Your task to perform on an android device: clear all cookies in the chrome app Image 0: 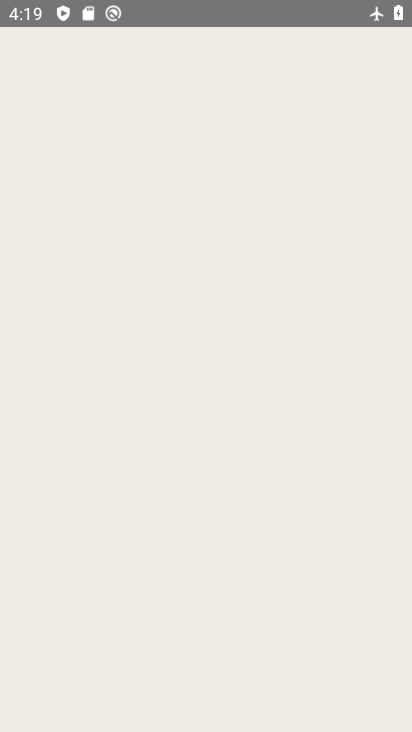
Step 0: click (114, 86)
Your task to perform on an android device: clear all cookies in the chrome app Image 1: 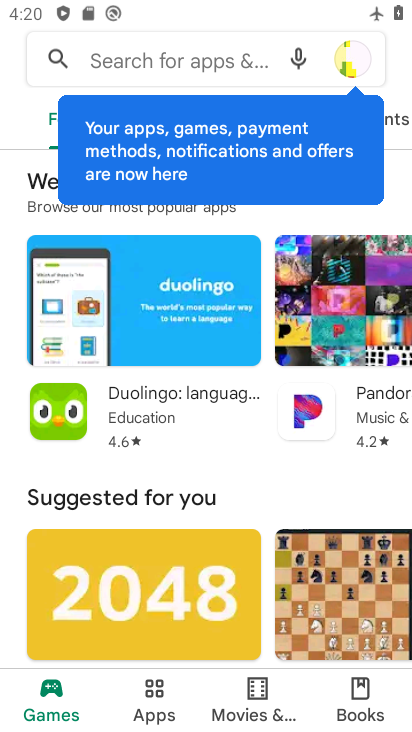
Step 1: press home button
Your task to perform on an android device: clear all cookies in the chrome app Image 2: 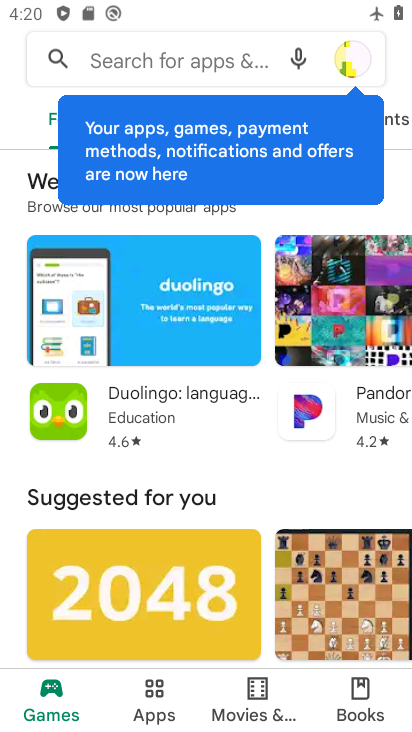
Step 2: press home button
Your task to perform on an android device: clear all cookies in the chrome app Image 3: 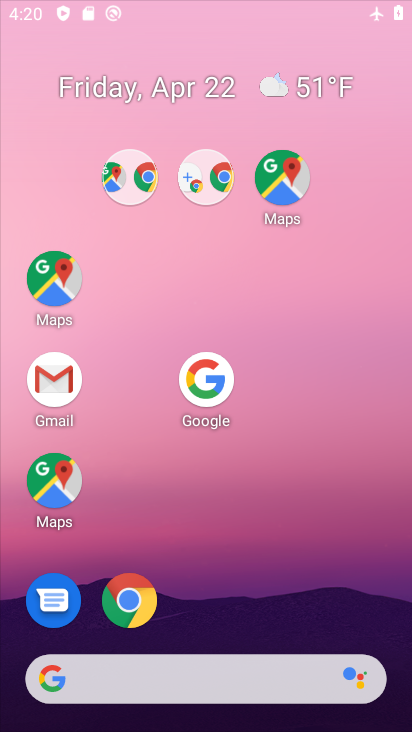
Step 3: press home button
Your task to perform on an android device: clear all cookies in the chrome app Image 4: 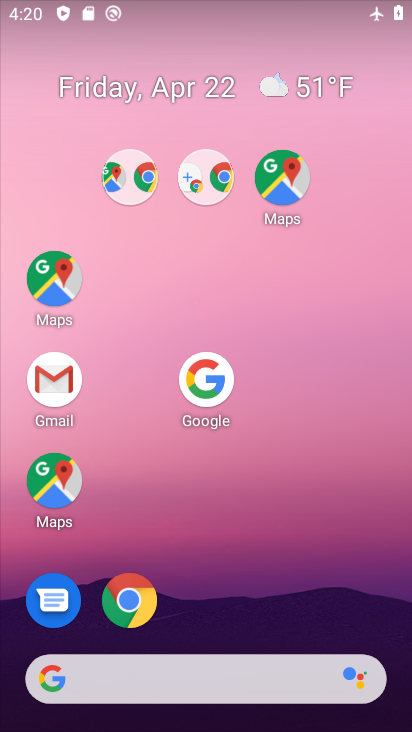
Step 4: drag from (306, 501) to (264, 317)
Your task to perform on an android device: clear all cookies in the chrome app Image 5: 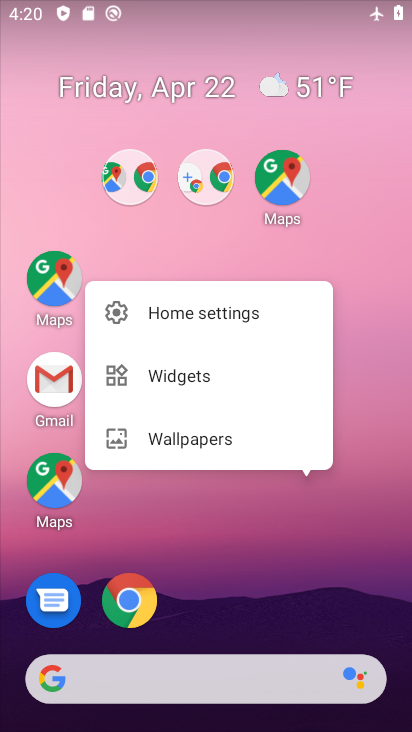
Step 5: drag from (260, 440) to (167, 196)
Your task to perform on an android device: clear all cookies in the chrome app Image 6: 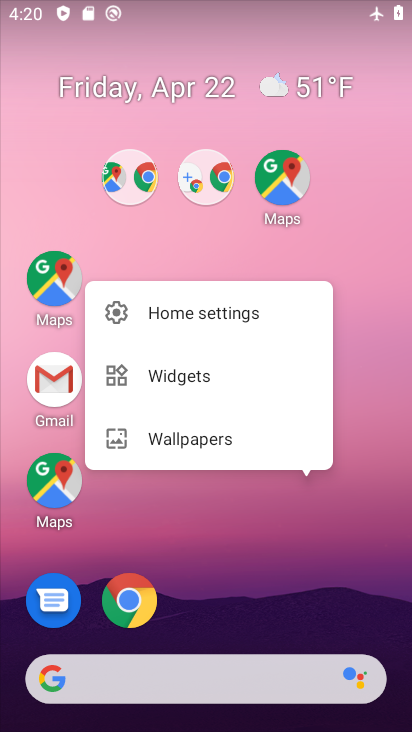
Step 6: click (207, 24)
Your task to perform on an android device: clear all cookies in the chrome app Image 7: 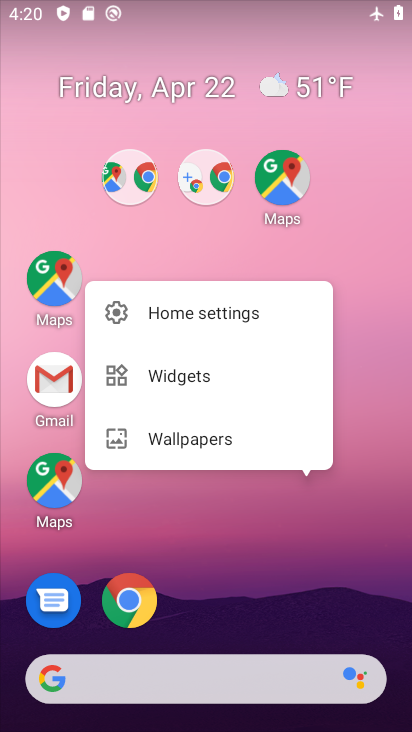
Step 7: click (367, 228)
Your task to perform on an android device: clear all cookies in the chrome app Image 8: 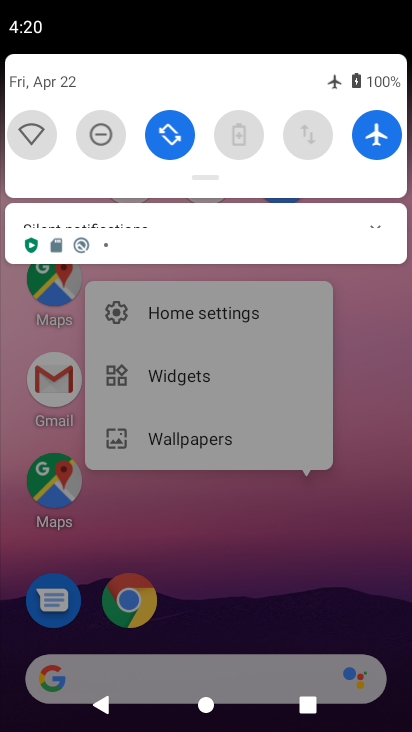
Step 8: click (356, 225)
Your task to perform on an android device: clear all cookies in the chrome app Image 9: 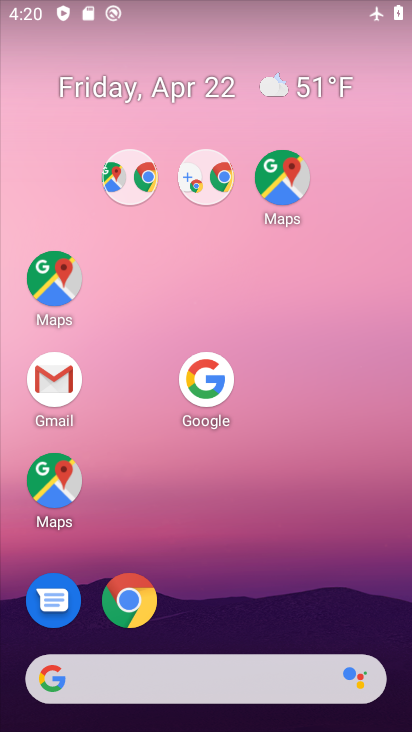
Step 9: drag from (297, 267) to (277, 120)
Your task to perform on an android device: clear all cookies in the chrome app Image 10: 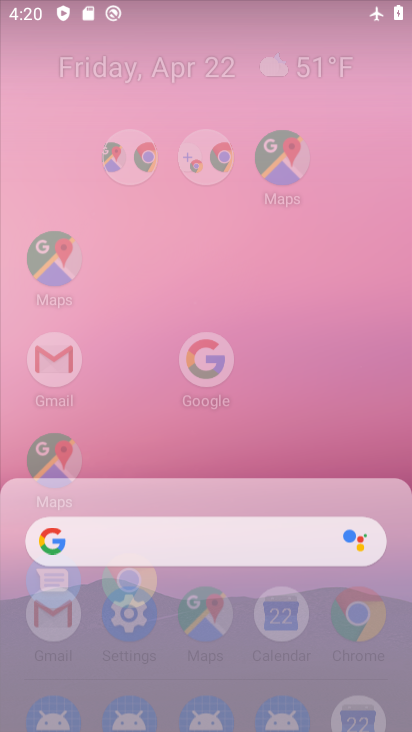
Step 10: drag from (276, 513) to (196, 72)
Your task to perform on an android device: clear all cookies in the chrome app Image 11: 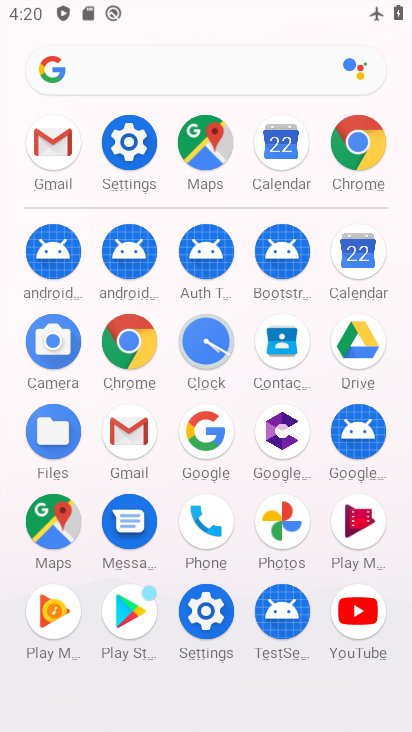
Step 11: click (359, 134)
Your task to perform on an android device: clear all cookies in the chrome app Image 12: 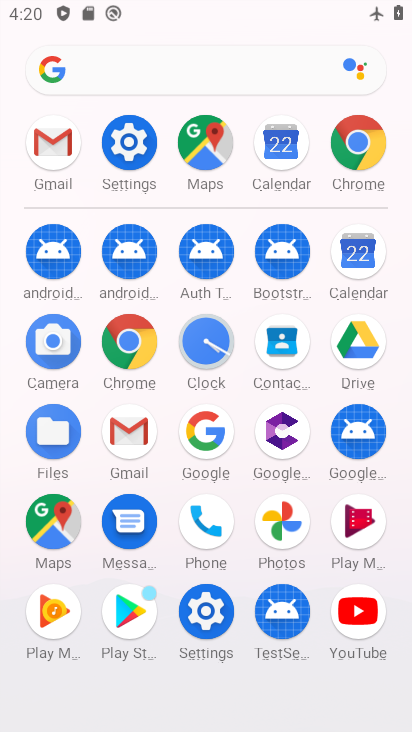
Step 12: click (359, 134)
Your task to perform on an android device: clear all cookies in the chrome app Image 13: 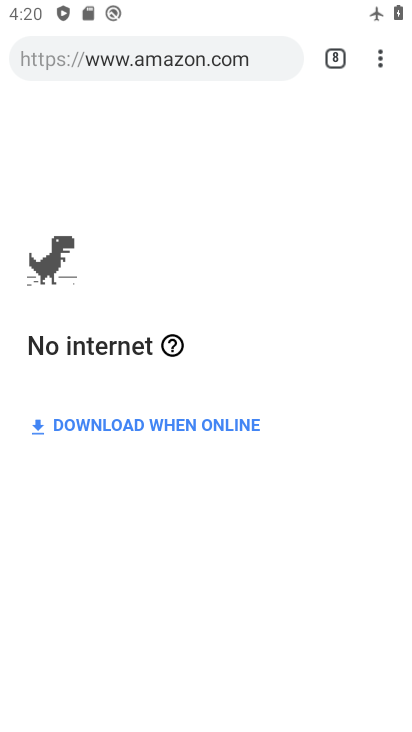
Step 13: click (375, 62)
Your task to perform on an android device: clear all cookies in the chrome app Image 14: 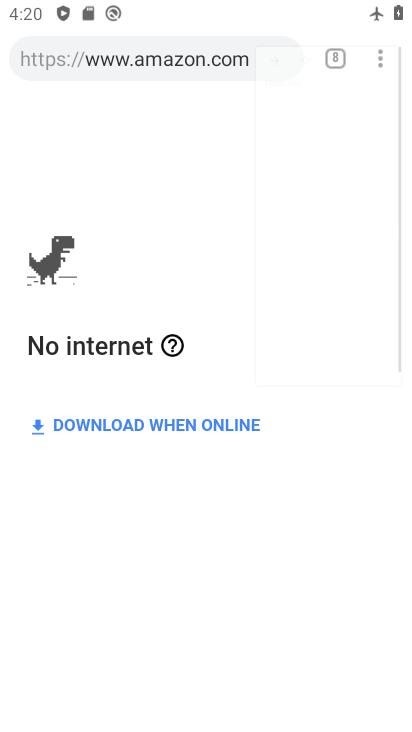
Step 14: click (375, 61)
Your task to perform on an android device: clear all cookies in the chrome app Image 15: 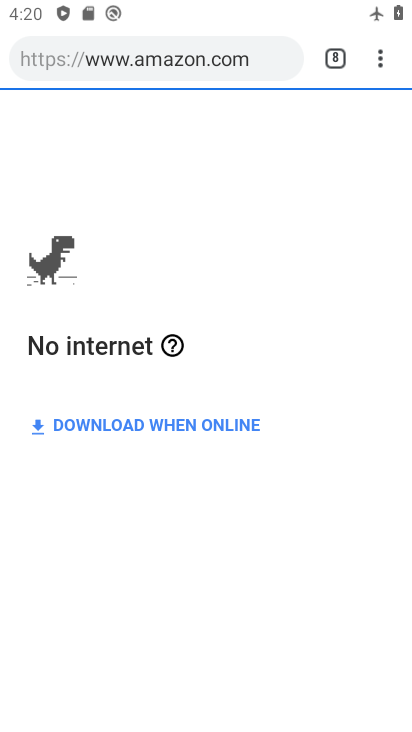
Step 15: click (375, 61)
Your task to perform on an android device: clear all cookies in the chrome app Image 16: 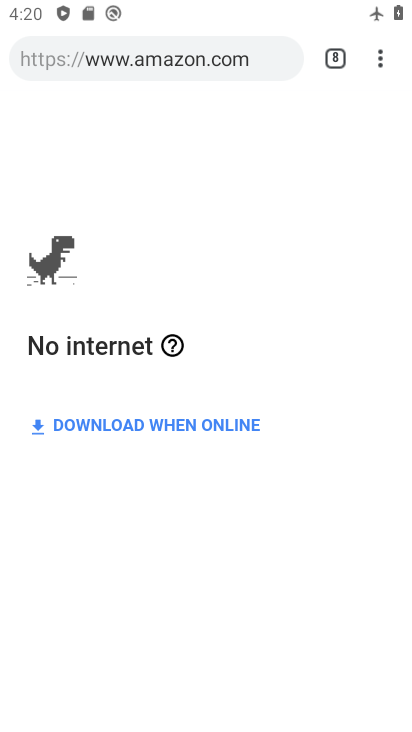
Step 16: drag from (377, 69) to (174, 619)
Your task to perform on an android device: clear all cookies in the chrome app Image 17: 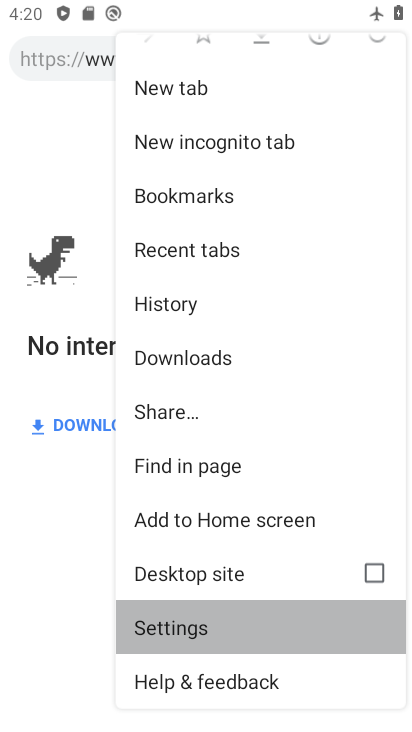
Step 17: click (178, 623)
Your task to perform on an android device: clear all cookies in the chrome app Image 18: 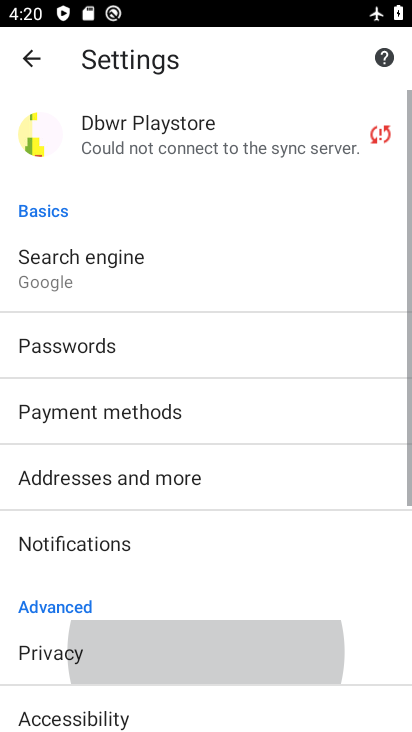
Step 18: click (181, 621)
Your task to perform on an android device: clear all cookies in the chrome app Image 19: 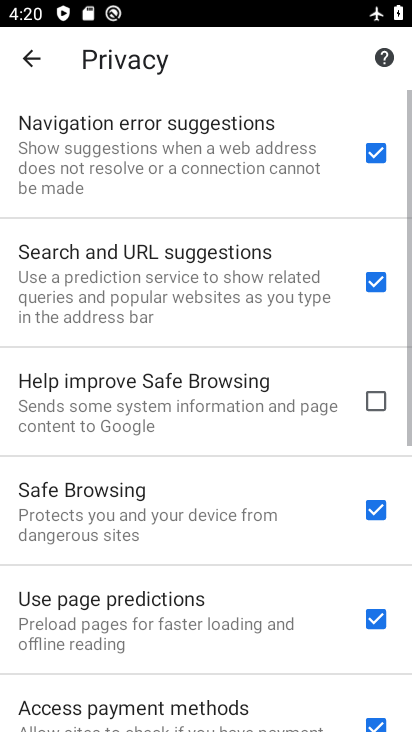
Step 19: click (21, 46)
Your task to perform on an android device: clear all cookies in the chrome app Image 20: 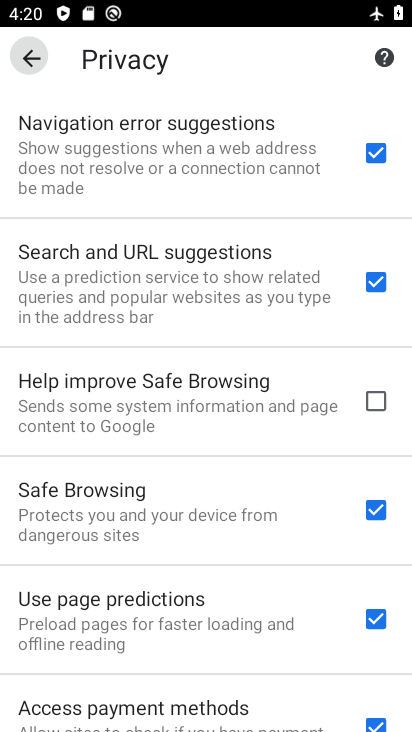
Step 20: click (21, 45)
Your task to perform on an android device: clear all cookies in the chrome app Image 21: 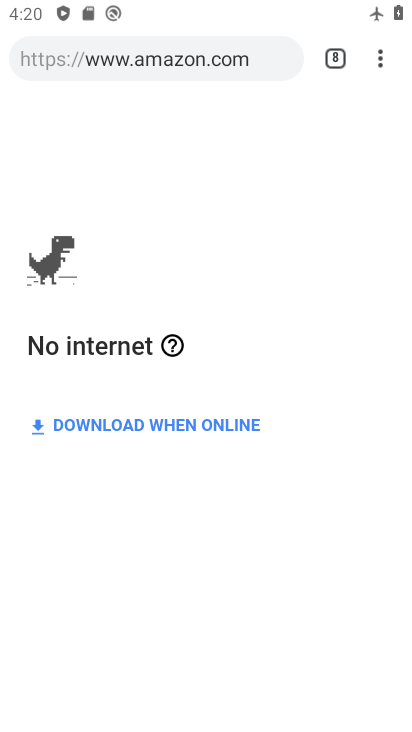
Step 21: drag from (175, 536) to (156, 233)
Your task to perform on an android device: clear all cookies in the chrome app Image 22: 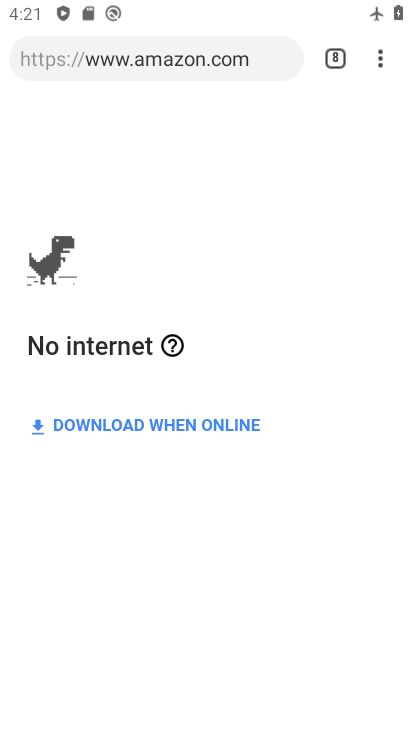
Step 22: press back button
Your task to perform on an android device: clear all cookies in the chrome app Image 23: 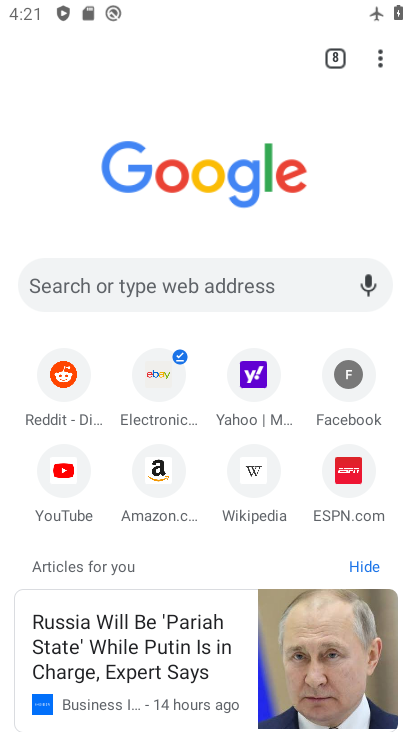
Step 23: drag from (376, 59) to (175, 484)
Your task to perform on an android device: clear all cookies in the chrome app Image 24: 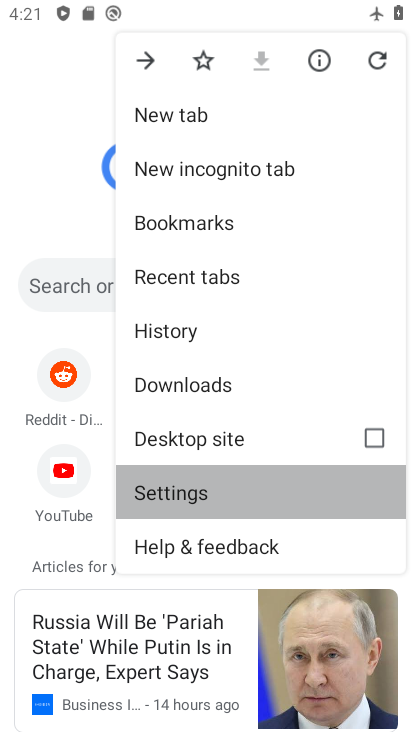
Step 24: click (173, 468)
Your task to perform on an android device: clear all cookies in the chrome app Image 25: 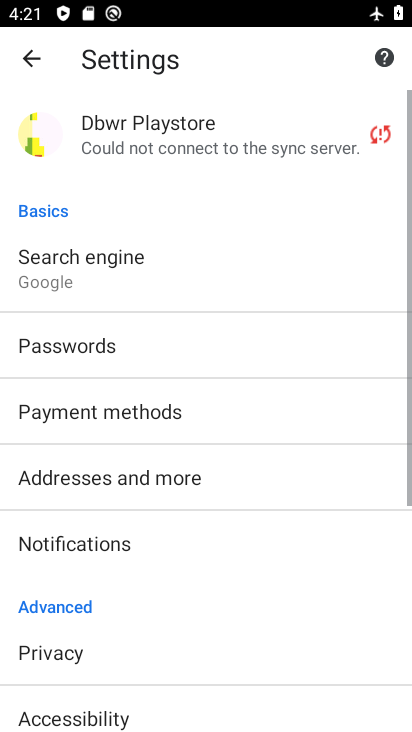
Step 25: click (176, 488)
Your task to perform on an android device: clear all cookies in the chrome app Image 26: 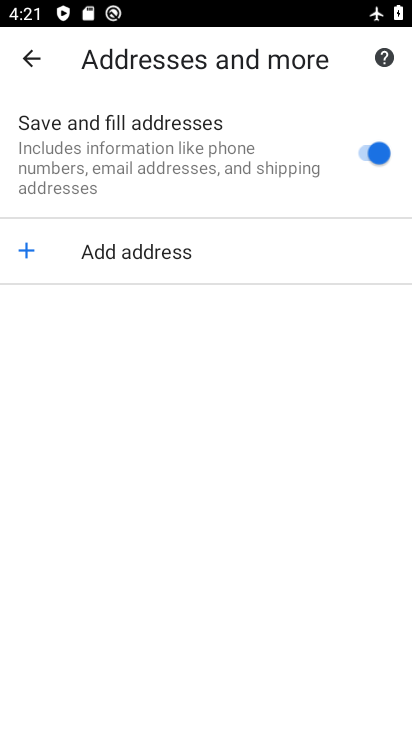
Step 26: click (34, 47)
Your task to perform on an android device: clear all cookies in the chrome app Image 27: 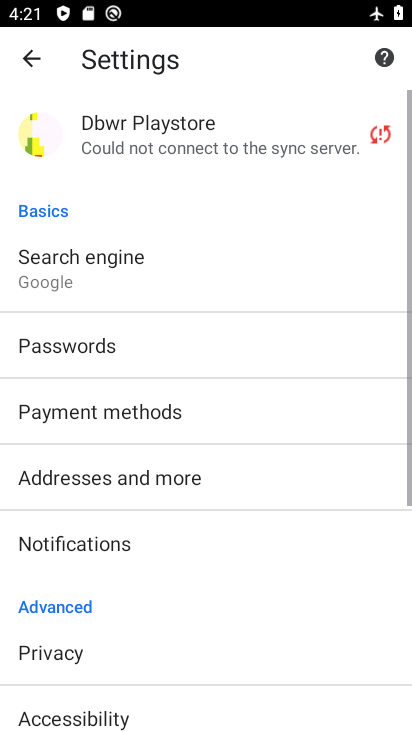
Step 27: drag from (126, 290) to (117, 227)
Your task to perform on an android device: clear all cookies in the chrome app Image 28: 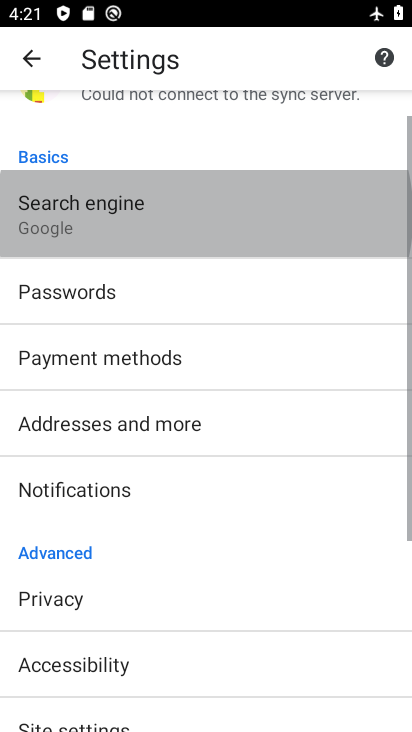
Step 28: drag from (157, 485) to (178, 77)
Your task to perform on an android device: clear all cookies in the chrome app Image 29: 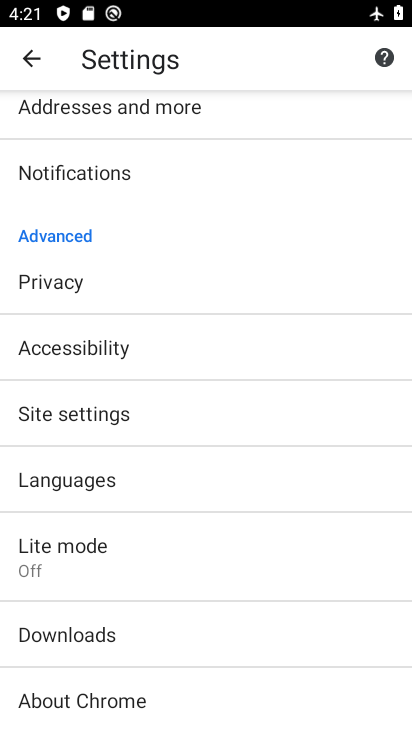
Step 29: click (61, 403)
Your task to perform on an android device: clear all cookies in the chrome app Image 30: 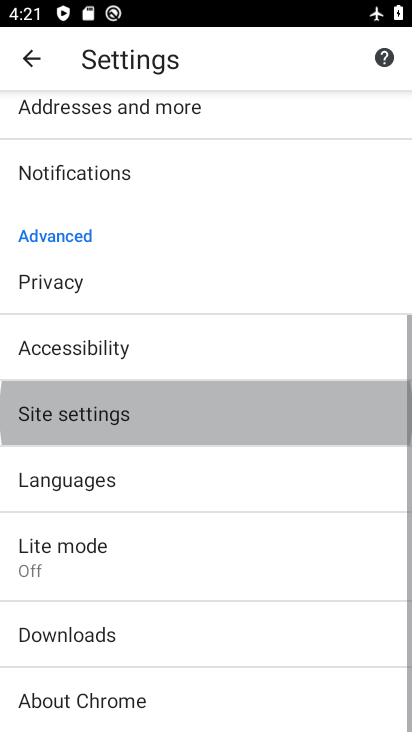
Step 30: click (61, 403)
Your task to perform on an android device: clear all cookies in the chrome app Image 31: 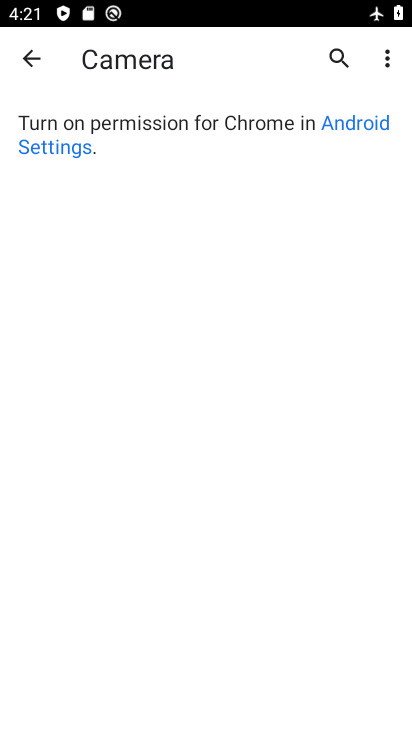
Step 31: click (18, 52)
Your task to perform on an android device: clear all cookies in the chrome app Image 32: 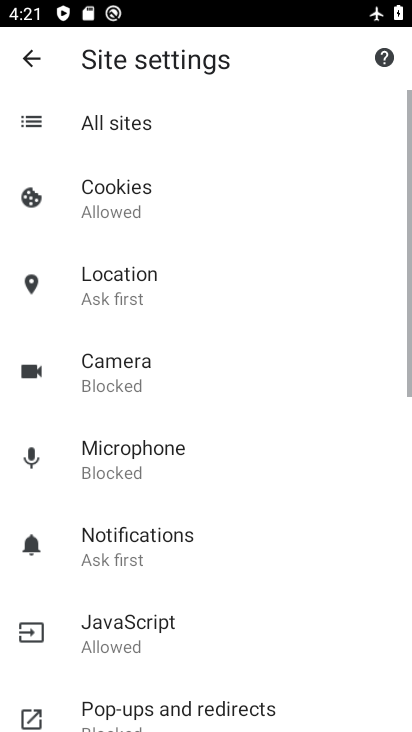
Step 32: click (104, 182)
Your task to perform on an android device: clear all cookies in the chrome app Image 33: 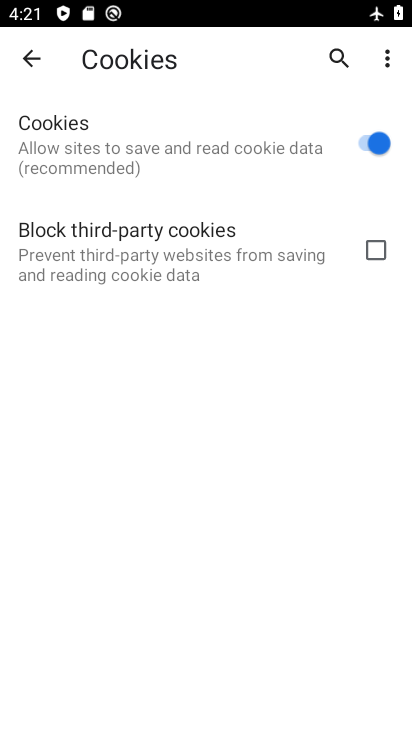
Step 33: click (365, 145)
Your task to perform on an android device: clear all cookies in the chrome app Image 34: 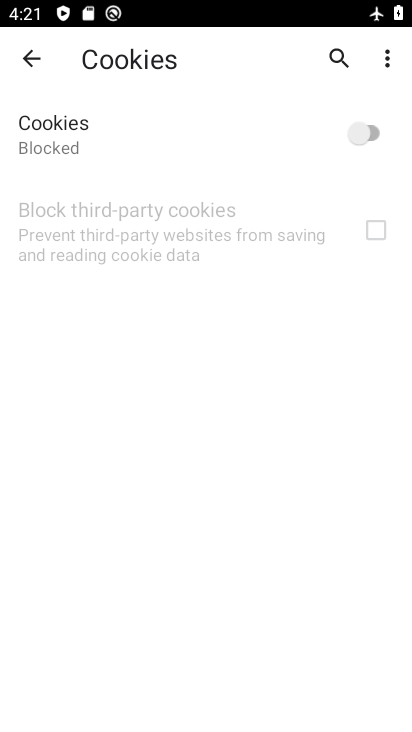
Step 34: task complete